Your task to perform on an android device: Set the phone to "Do not disturb". Image 0: 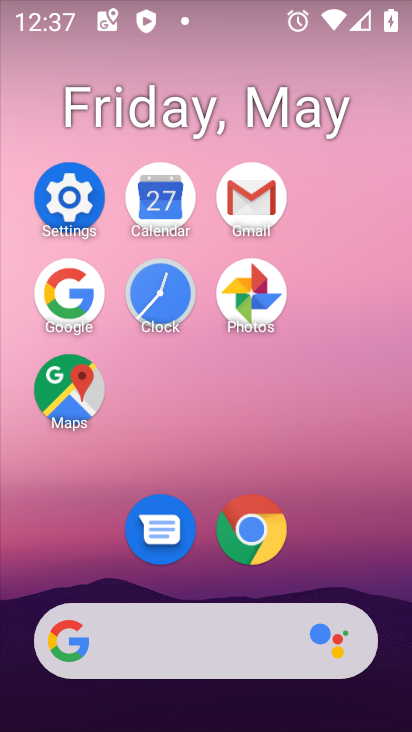
Step 0: click (82, 220)
Your task to perform on an android device: Set the phone to "Do not disturb". Image 1: 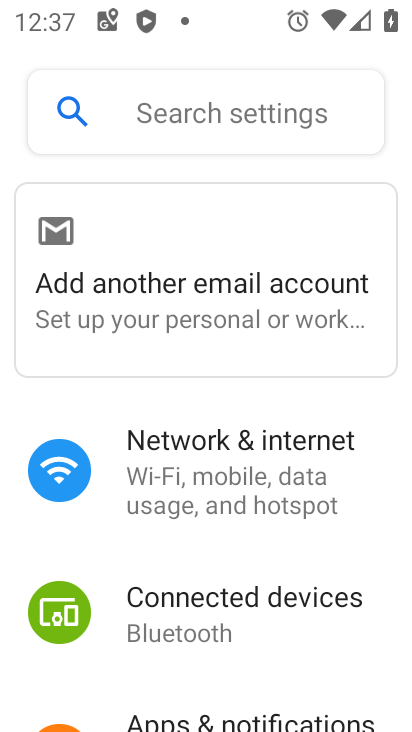
Step 1: drag from (165, 590) to (169, 217)
Your task to perform on an android device: Set the phone to "Do not disturb". Image 2: 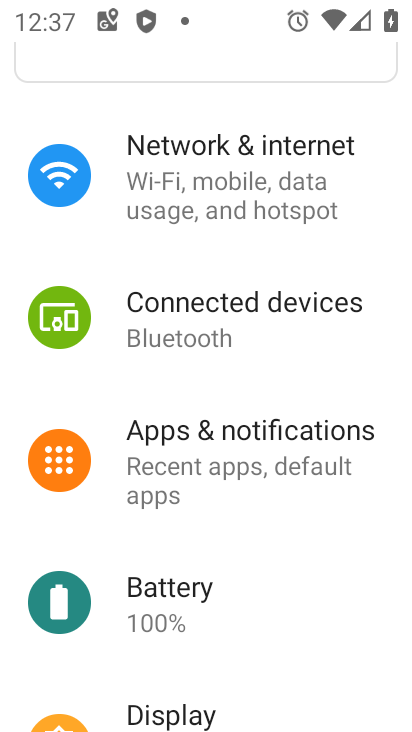
Step 2: drag from (218, 617) to (213, 166)
Your task to perform on an android device: Set the phone to "Do not disturb". Image 3: 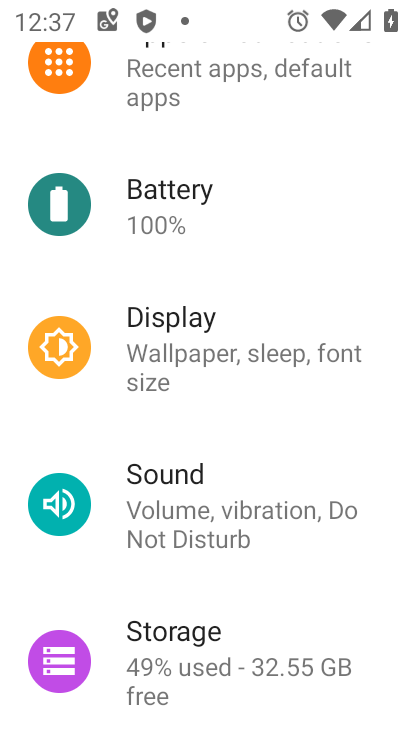
Step 3: click (249, 527)
Your task to perform on an android device: Set the phone to "Do not disturb". Image 4: 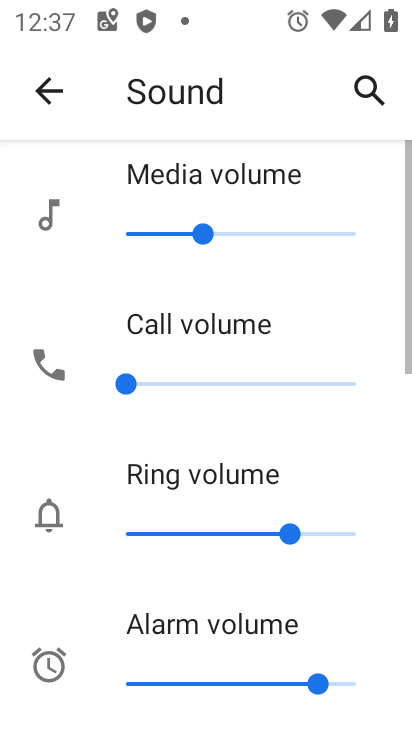
Step 4: drag from (248, 526) to (240, 192)
Your task to perform on an android device: Set the phone to "Do not disturb". Image 5: 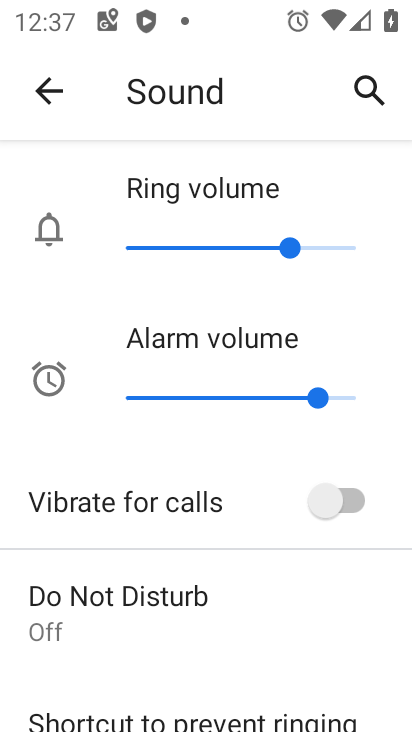
Step 5: click (204, 617)
Your task to perform on an android device: Set the phone to "Do not disturb". Image 6: 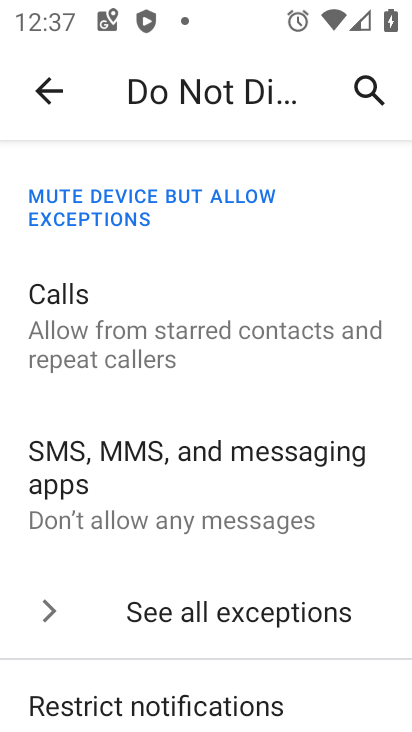
Step 6: drag from (216, 543) to (141, 191)
Your task to perform on an android device: Set the phone to "Do not disturb". Image 7: 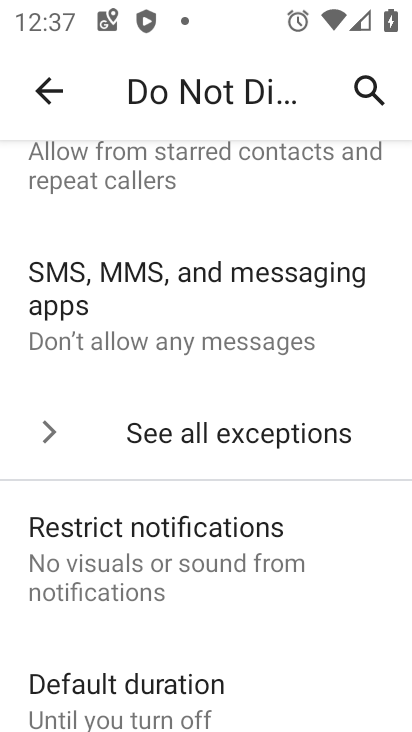
Step 7: drag from (246, 658) to (220, 166)
Your task to perform on an android device: Set the phone to "Do not disturb". Image 8: 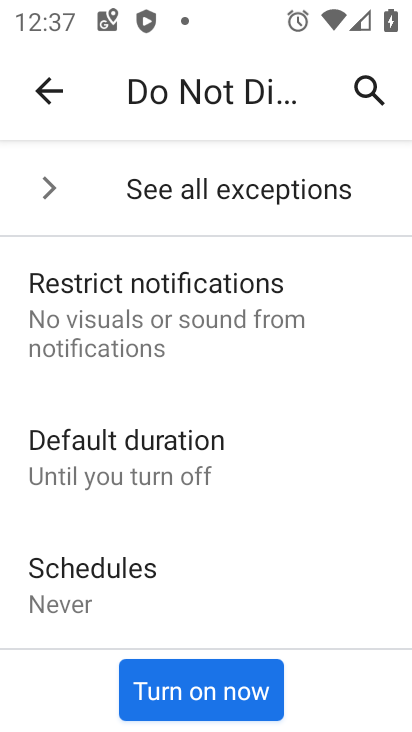
Step 8: click (245, 693)
Your task to perform on an android device: Set the phone to "Do not disturb". Image 9: 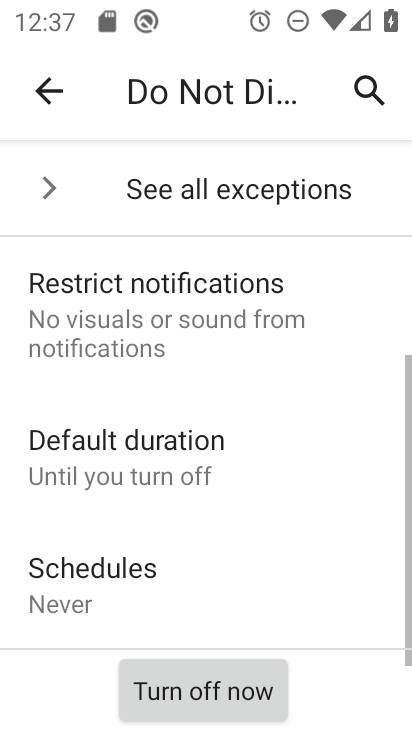
Step 9: task complete